Your task to perform on an android device: Open display settings Image 0: 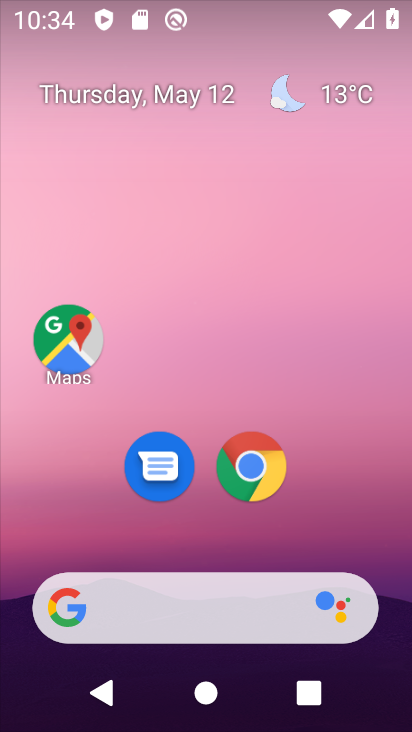
Step 0: drag from (197, 530) to (282, 3)
Your task to perform on an android device: Open display settings Image 1: 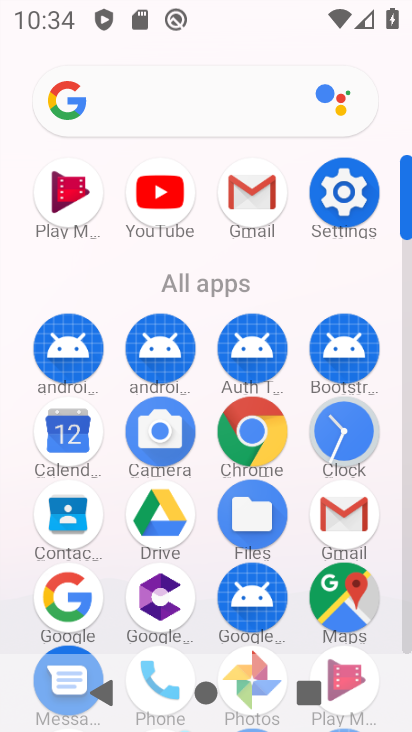
Step 1: click (346, 183)
Your task to perform on an android device: Open display settings Image 2: 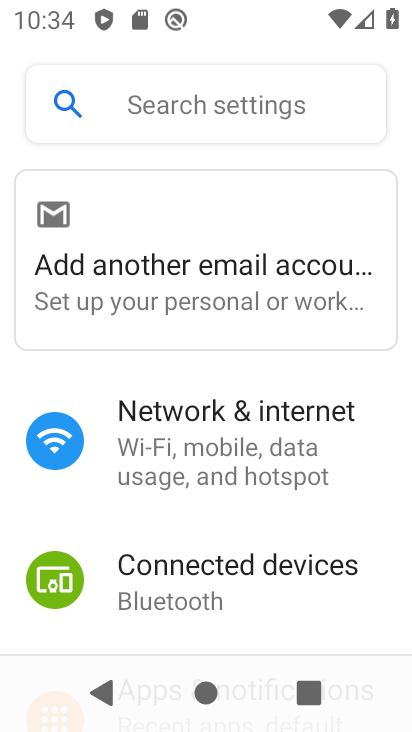
Step 2: drag from (208, 561) to (275, 69)
Your task to perform on an android device: Open display settings Image 3: 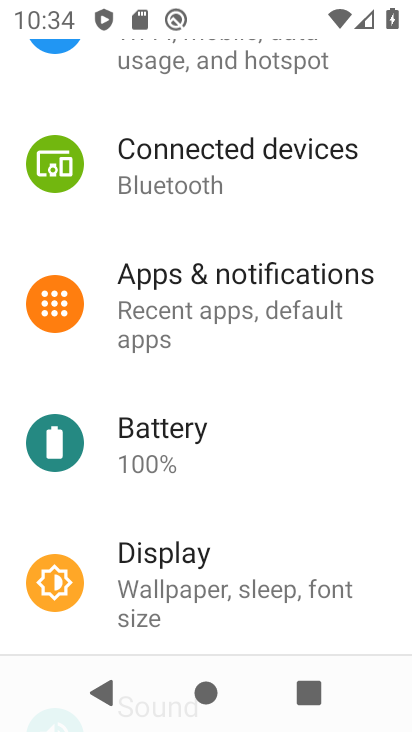
Step 3: click (203, 571)
Your task to perform on an android device: Open display settings Image 4: 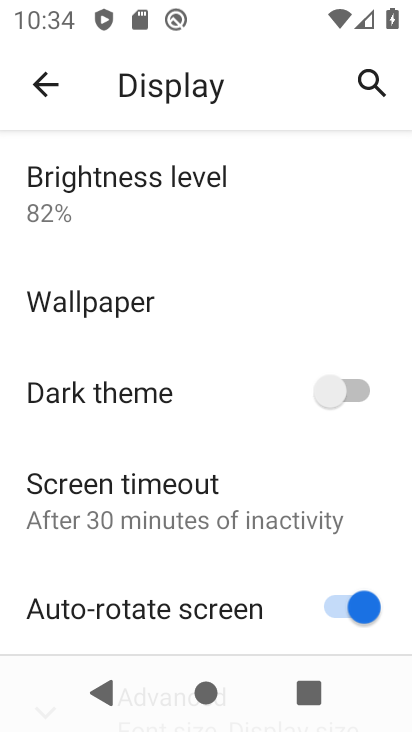
Step 4: task complete